Your task to perform on an android device: Play the new Bruno Mars video on YouTube Image 0: 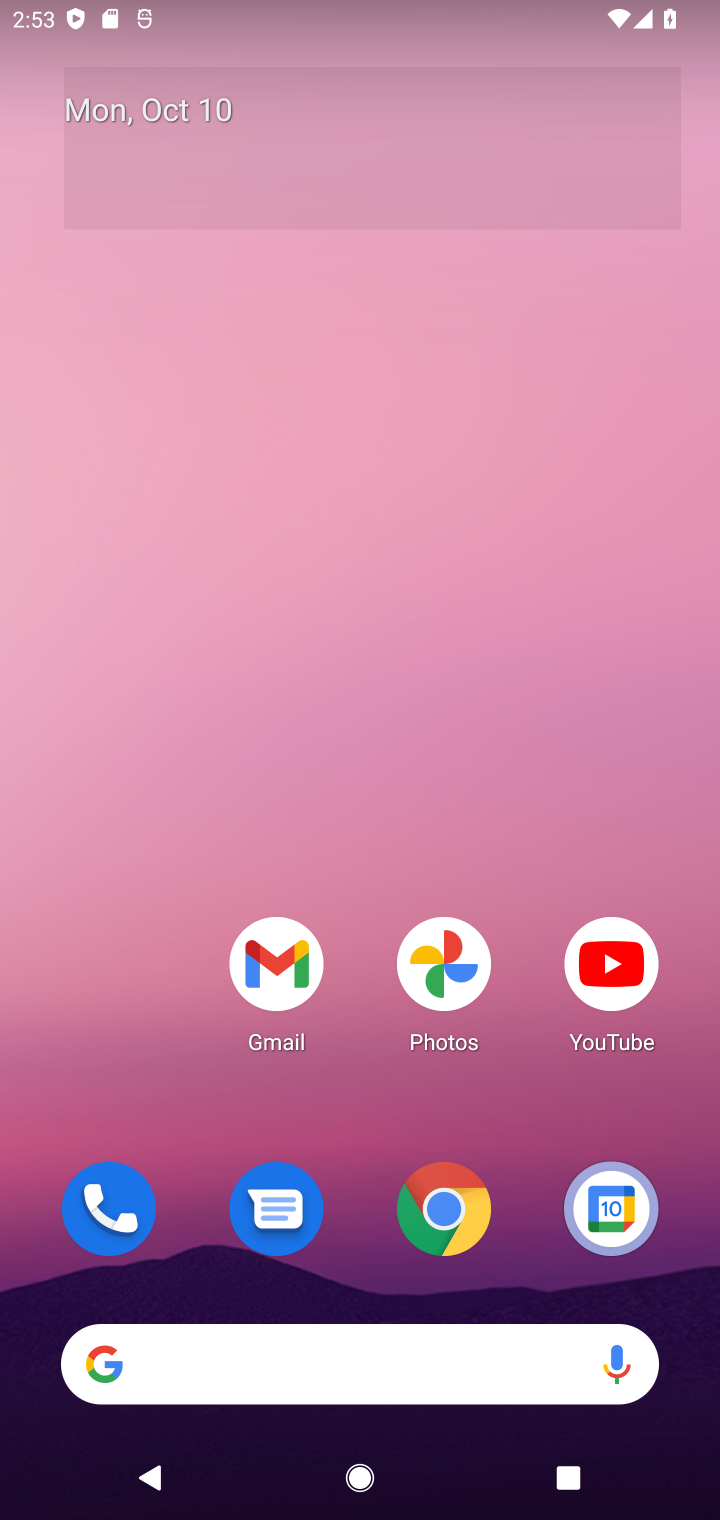
Step 0: click (587, 986)
Your task to perform on an android device: Play the new Bruno Mars video on YouTube Image 1: 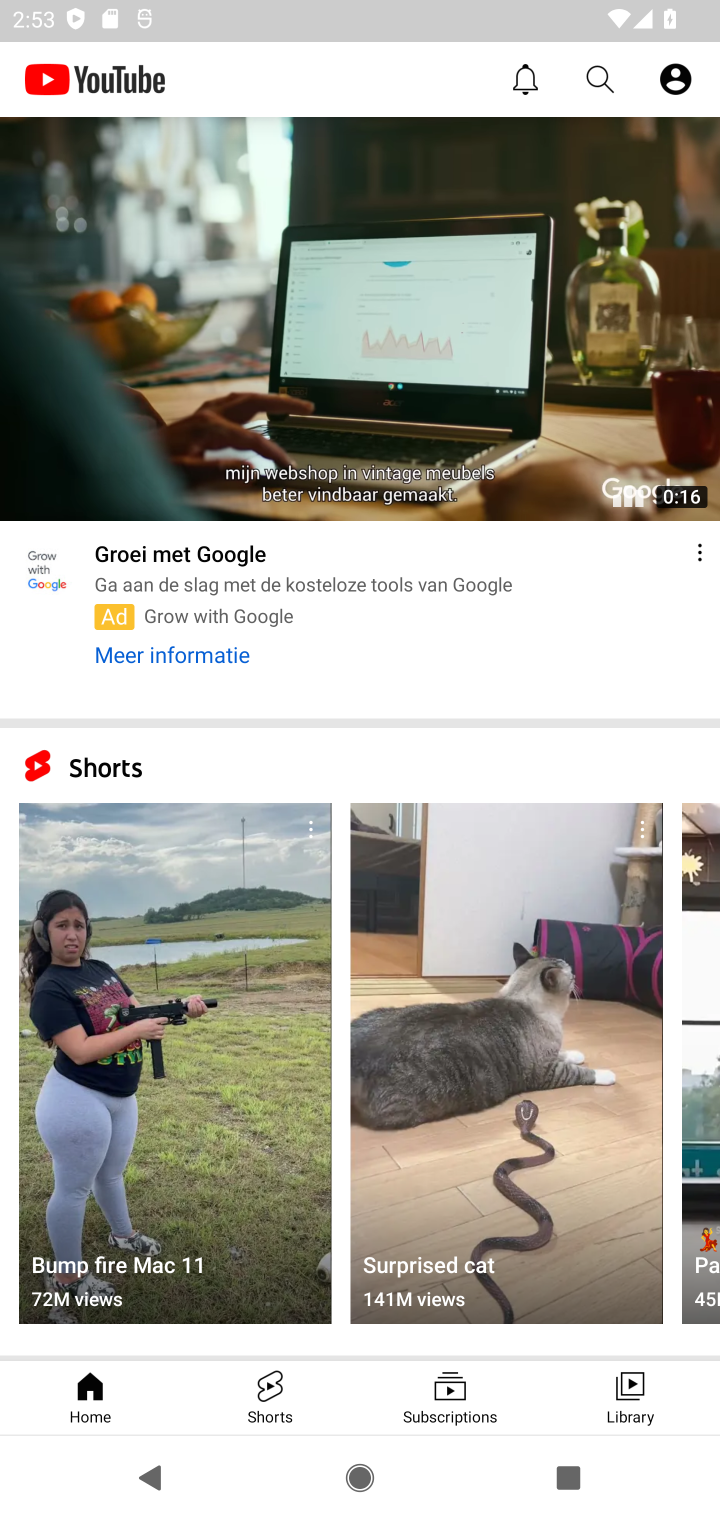
Step 1: click (591, 73)
Your task to perform on an android device: Play the new Bruno Mars video on YouTube Image 2: 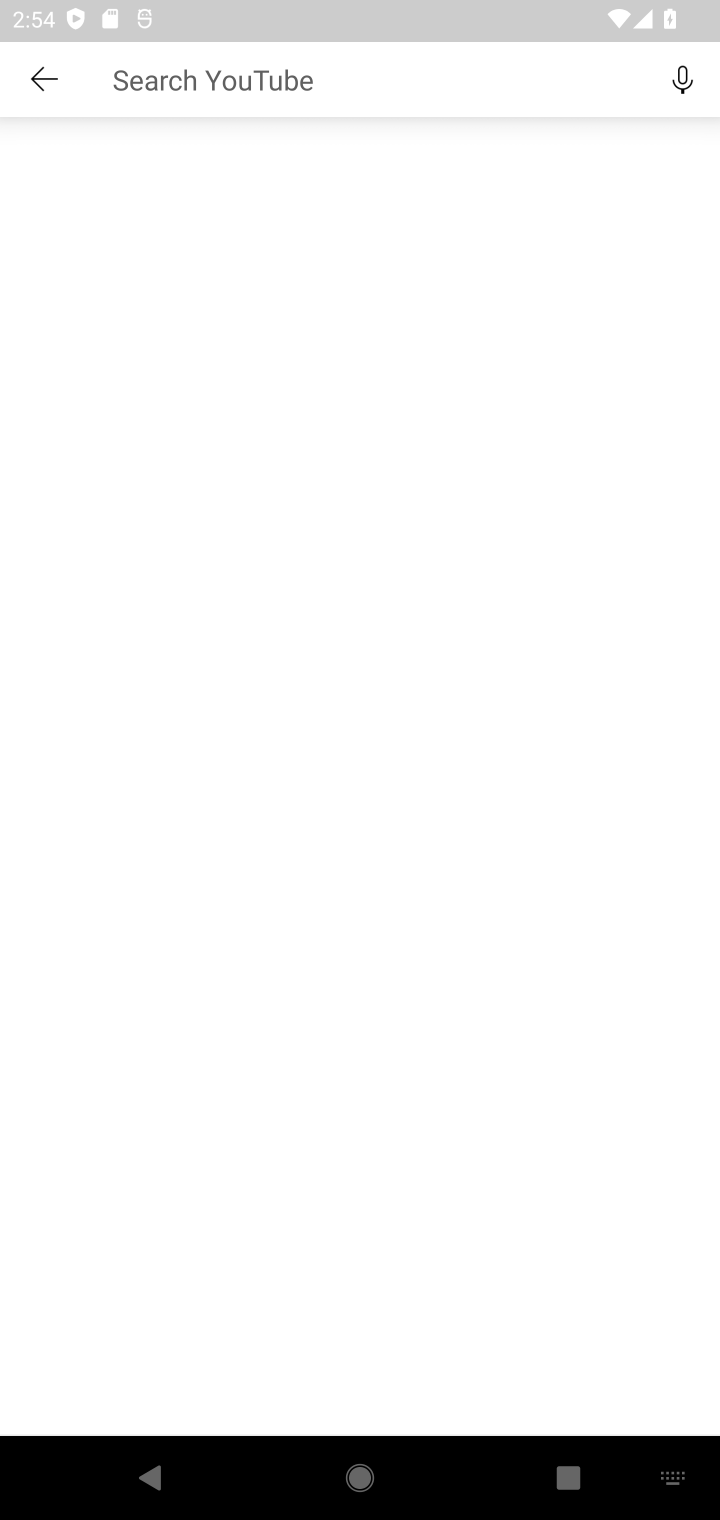
Step 2: type "new Bruno Mars video on YouTube"
Your task to perform on an android device: Play the new Bruno Mars video on YouTube Image 3: 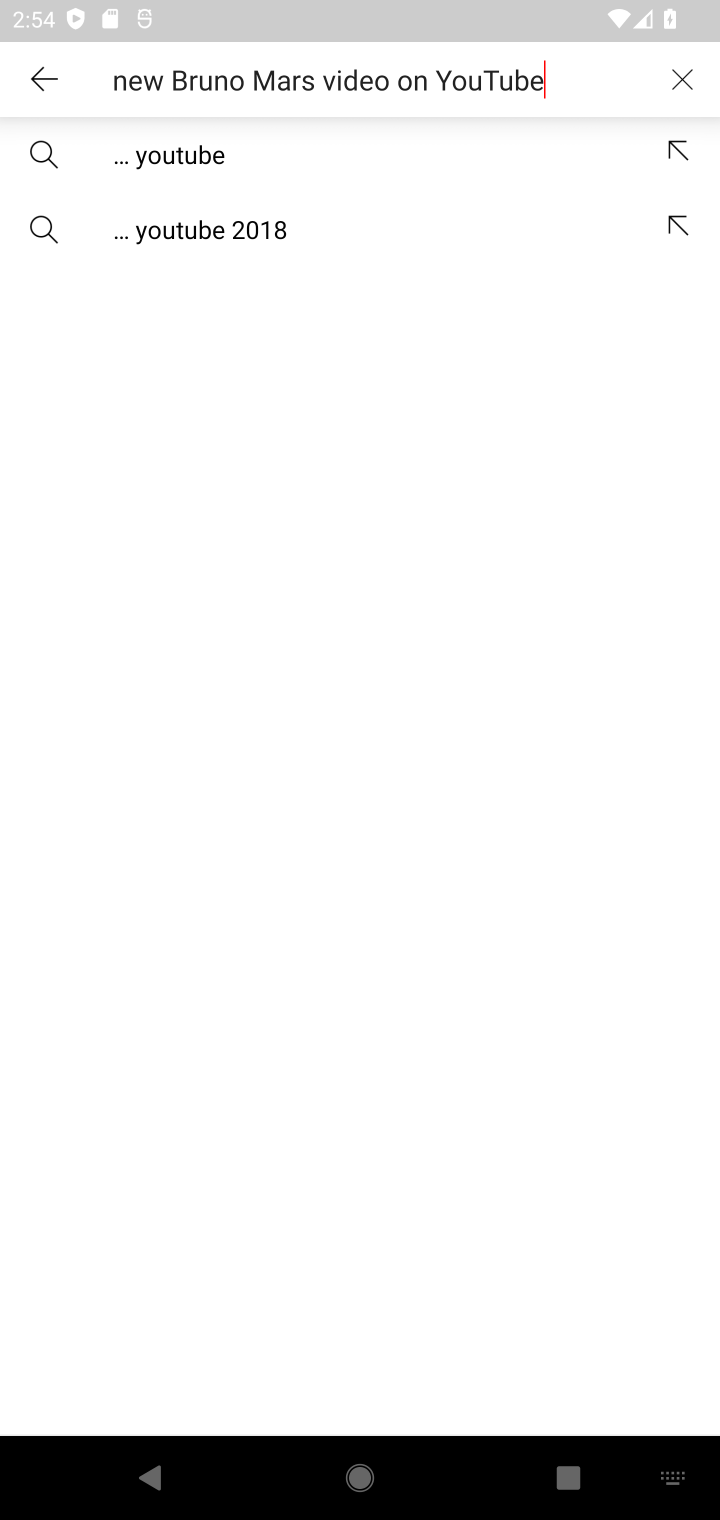
Step 3: press enter
Your task to perform on an android device: Play the new Bruno Mars video on YouTube Image 4: 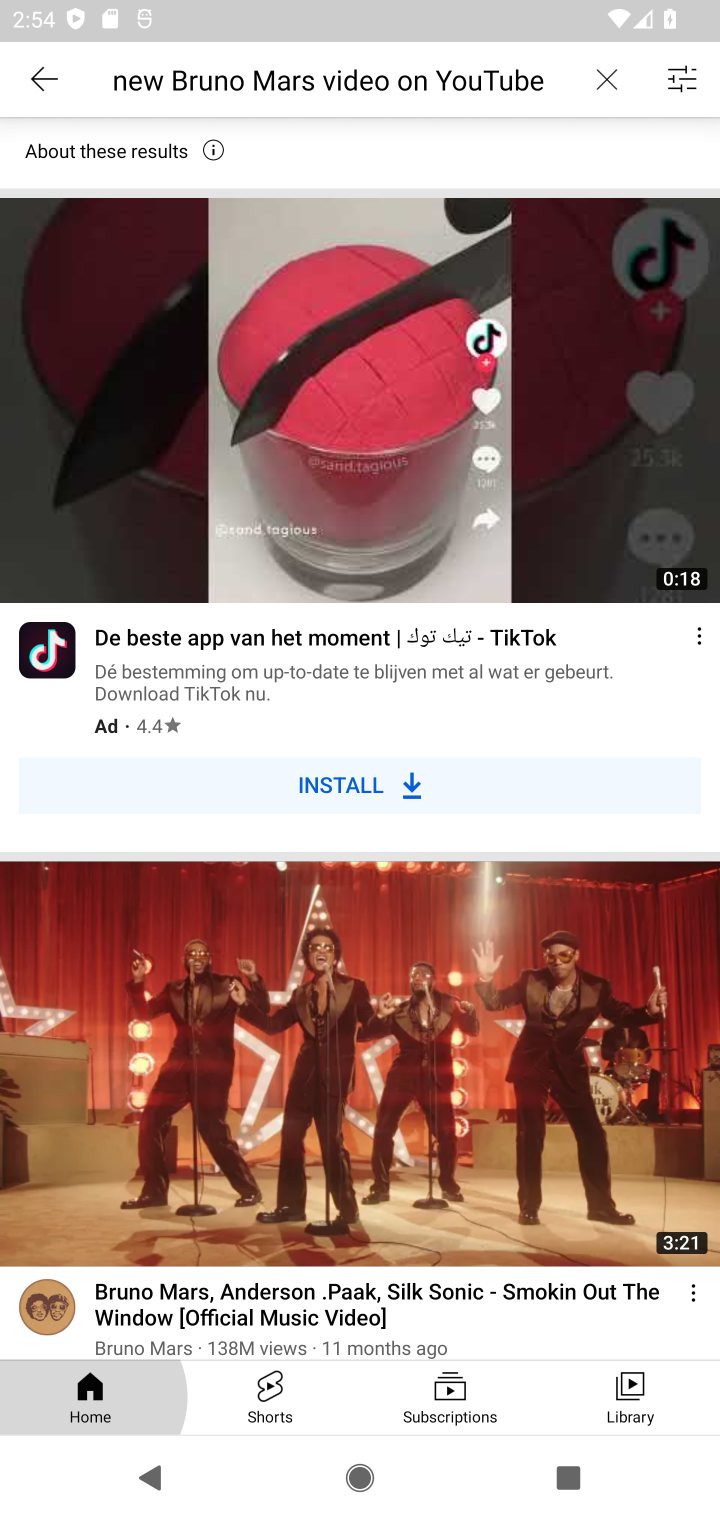
Step 4: drag from (263, 837) to (256, 492)
Your task to perform on an android device: Play the new Bruno Mars video on YouTube Image 5: 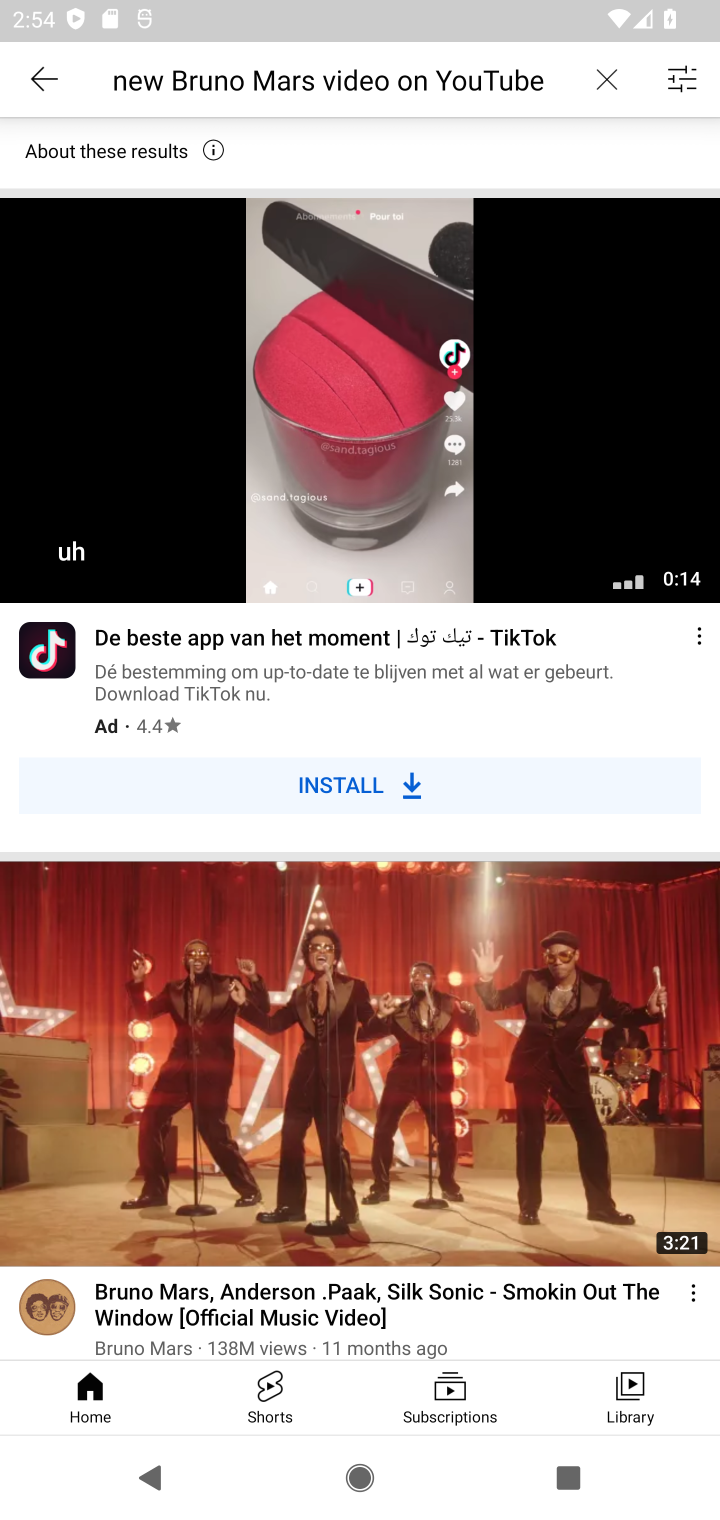
Step 5: click (52, 1305)
Your task to perform on an android device: Play the new Bruno Mars video on YouTube Image 6: 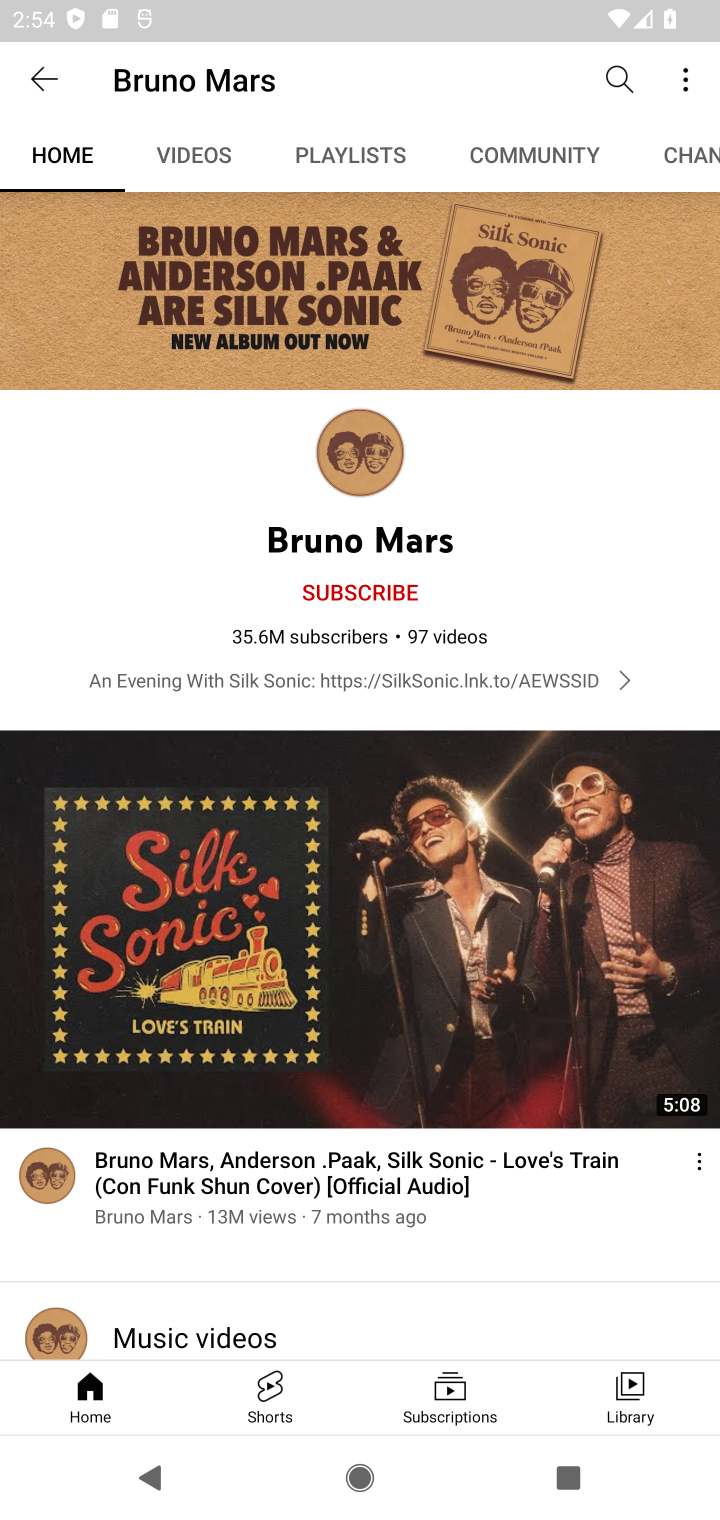
Step 6: click (54, 1183)
Your task to perform on an android device: Play the new Bruno Mars video on YouTube Image 7: 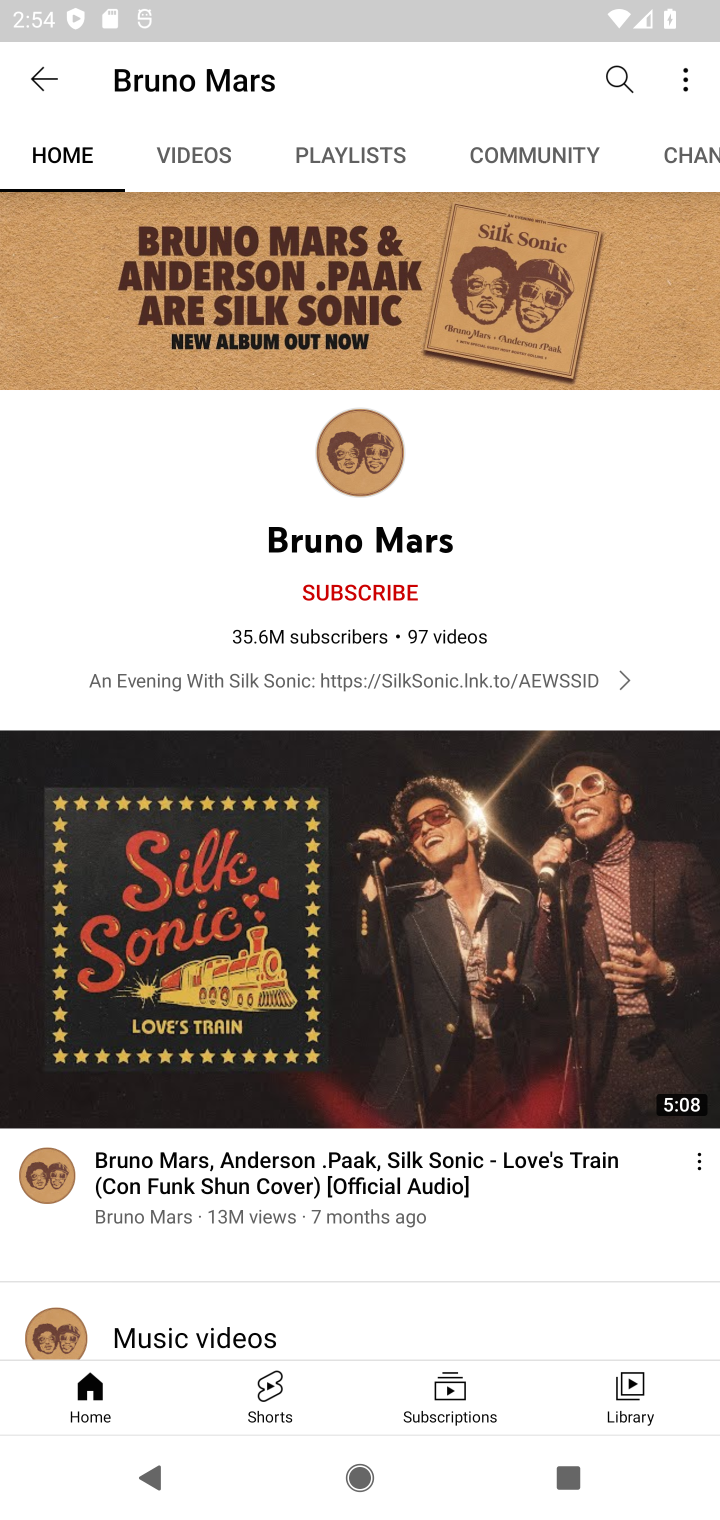
Step 7: click (188, 154)
Your task to perform on an android device: Play the new Bruno Mars video on YouTube Image 8: 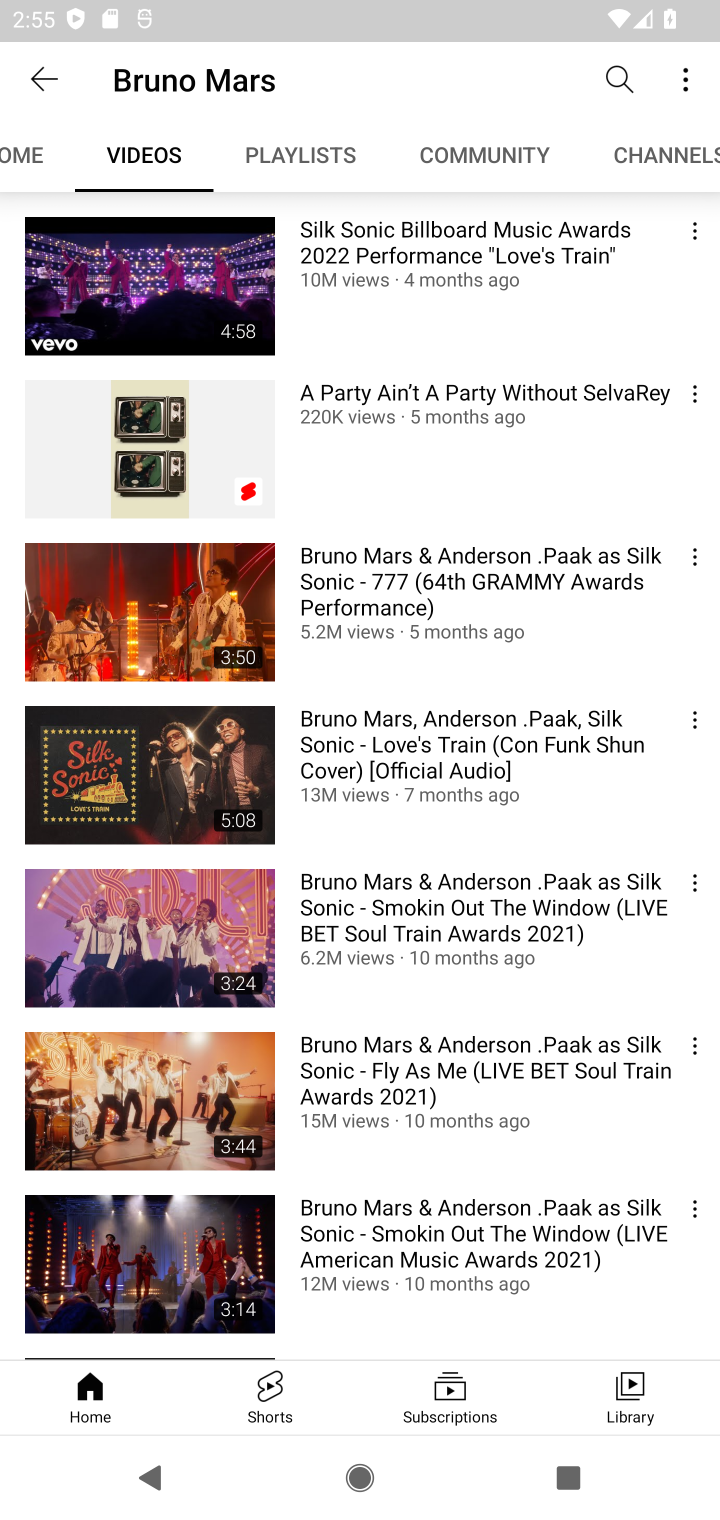
Step 8: click (211, 293)
Your task to perform on an android device: Play the new Bruno Mars video on YouTube Image 9: 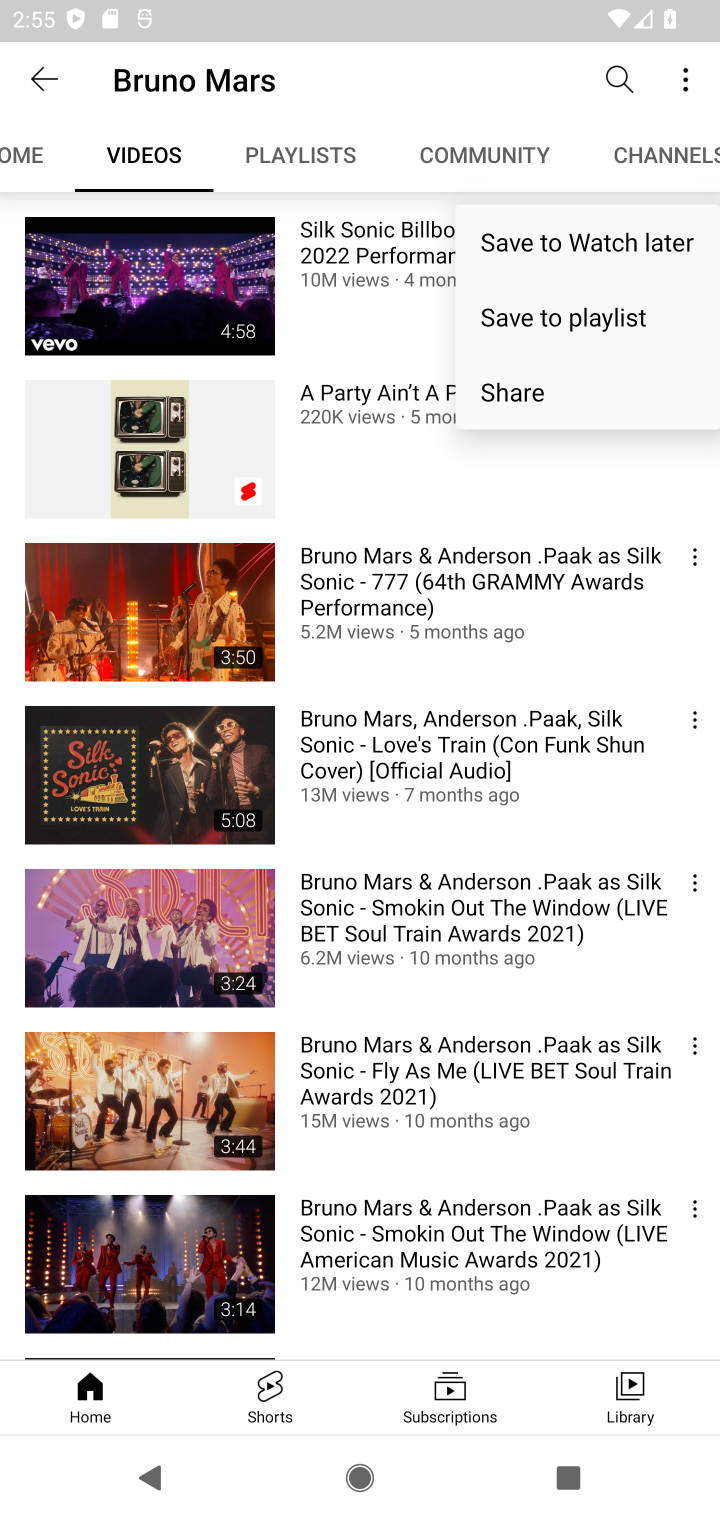
Step 9: click (243, 294)
Your task to perform on an android device: Play the new Bruno Mars video on YouTube Image 10: 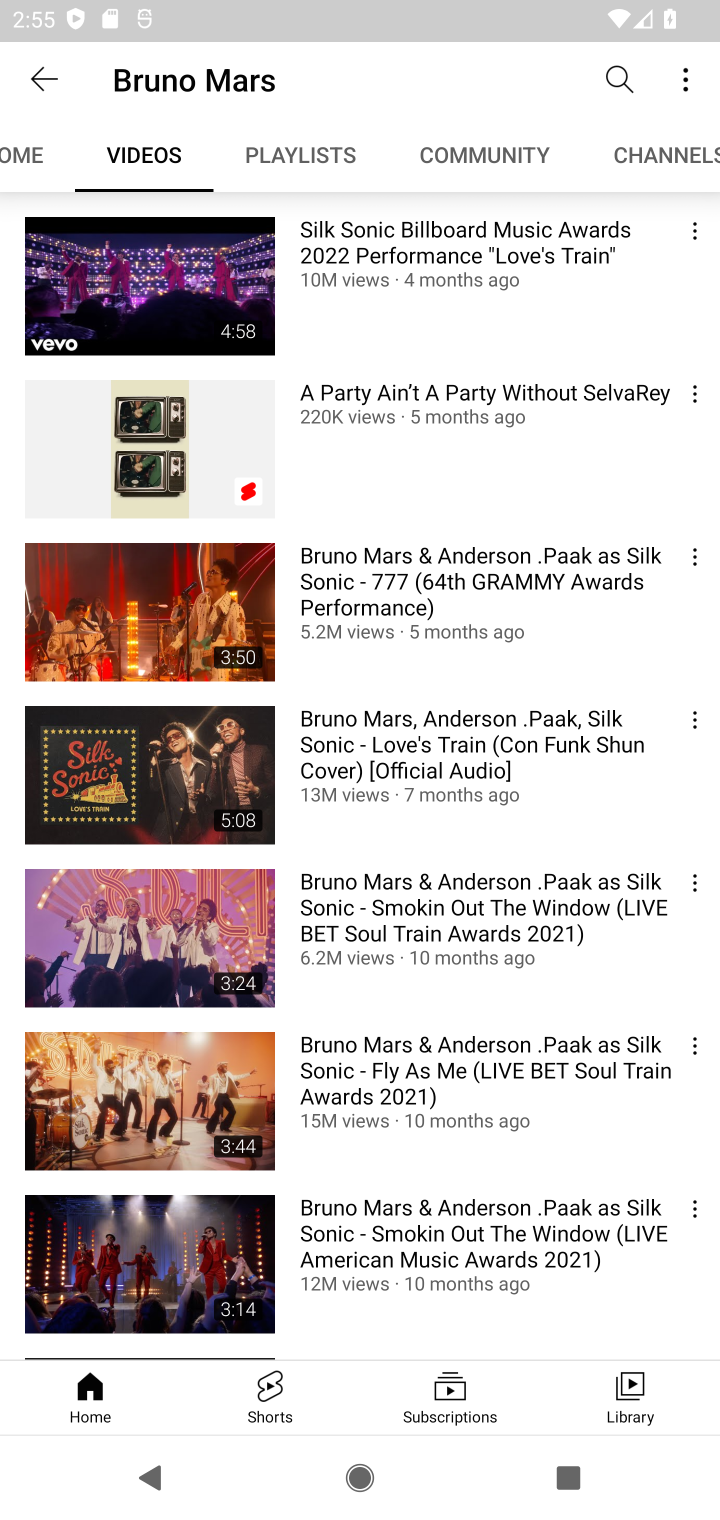
Step 10: click (209, 303)
Your task to perform on an android device: Play the new Bruno Mars video on YouTube Image 11: 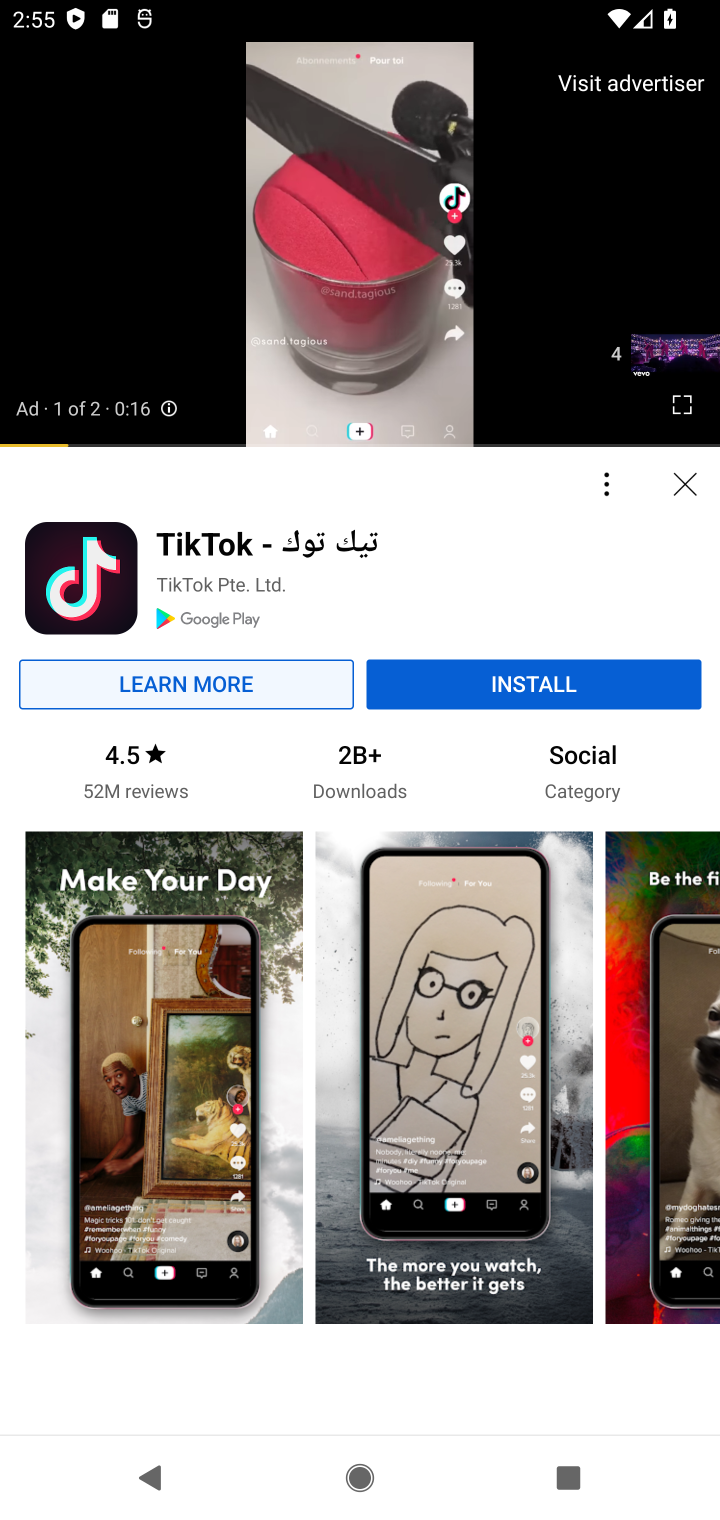
Step 11: task complete